Your task to perform on an android device: Go to network settings Image 0: 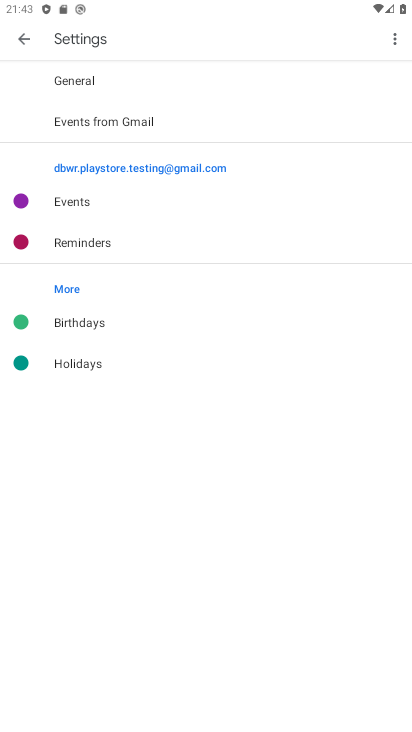
Step 0: press home button
Your task to perform on an android device: Go to network settings Image 1: 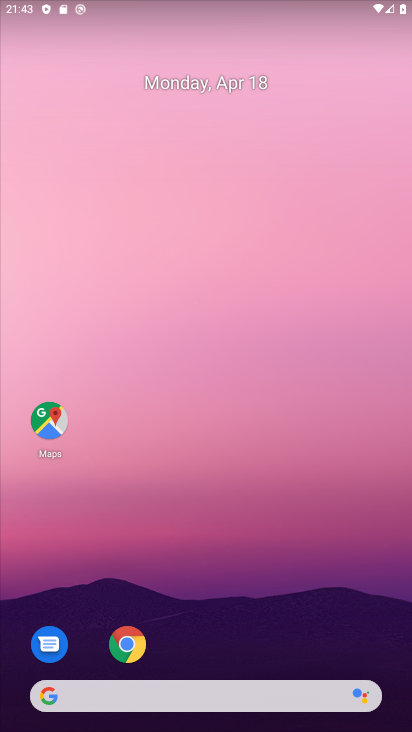
Step 1: drag from (226, 619) to (315, 128)
Your task to perform on an android device: Go to network settings Image 2: 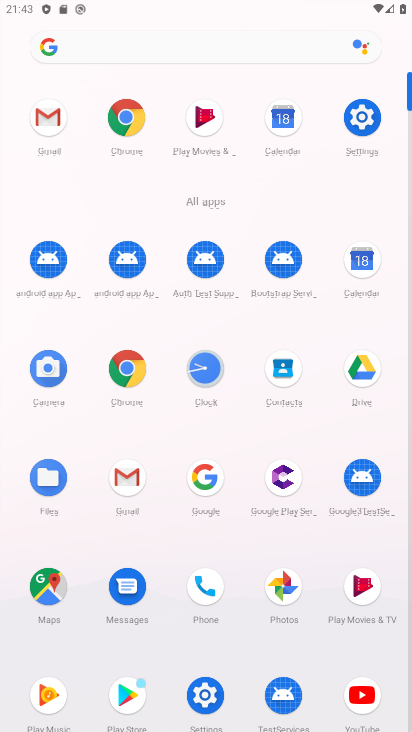
Step 2: click (366, 133)
Your task to perform on an android device: Go to network settings Image 3: 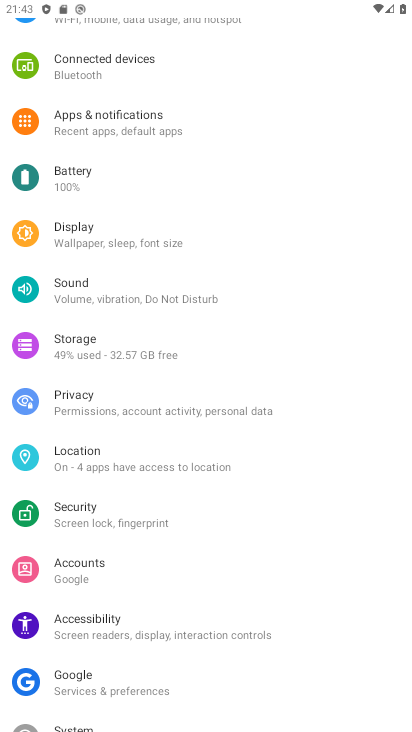
Step 3: drag from (198, 126) to (165, 533)
Your task to perform on an android device: Go to network settings Image 4: 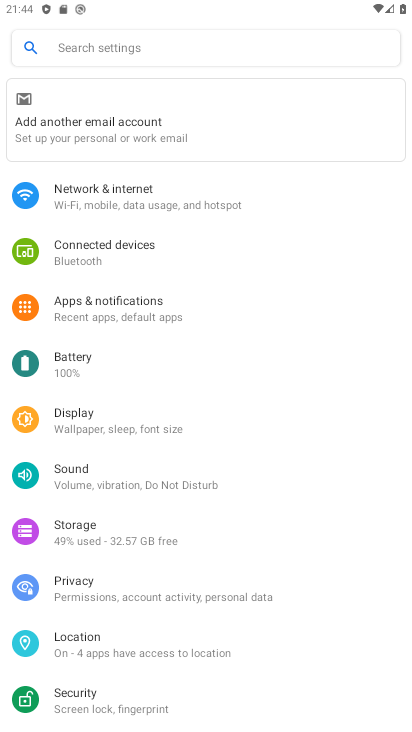
Step 4: click (141, 210)
Your task to perform on an android device: Go to network settings Image 5: 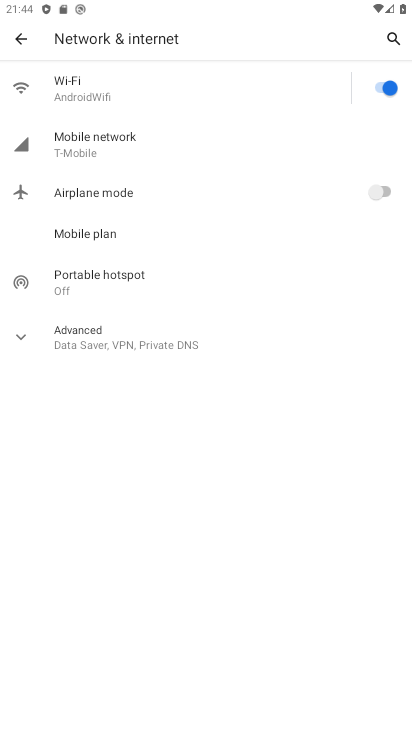
Step 5: task complete